Your task to perform on an android device: see tabs open on other devices in the chrome app Image 0: 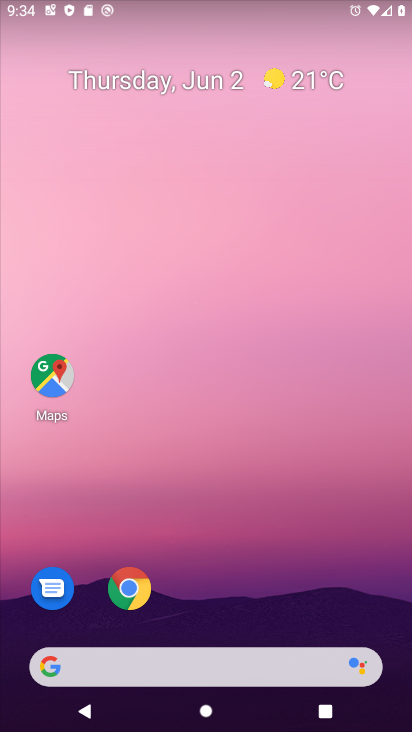
Step 0: click (143, 604)
Your task to perform on an android device: see tabs open on other devices in the chrome app Image 1: 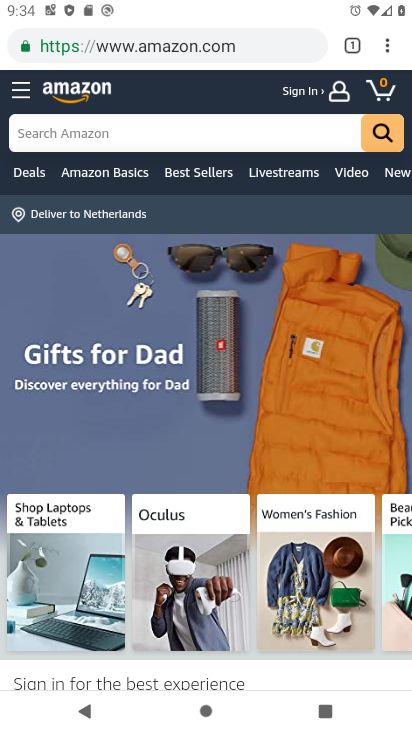
Step 1: task complete